Your task to perform on an android device: Open Chrome and go to settings Image 0: 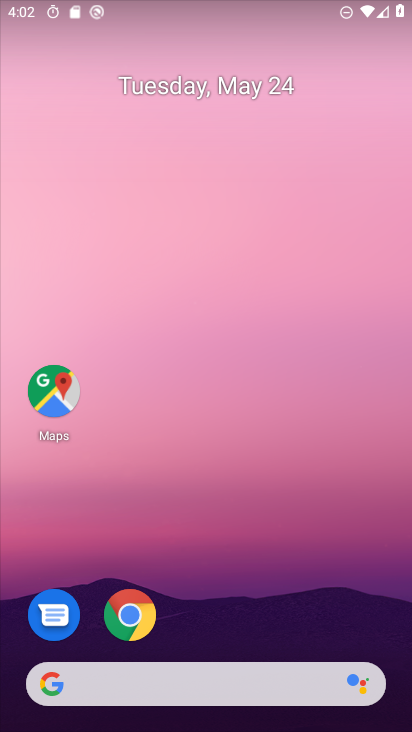
Step 0: drag from (214, 600) to (260, 150)
Your task to perform on an android device: Open Chrome and go to settings Image 1: 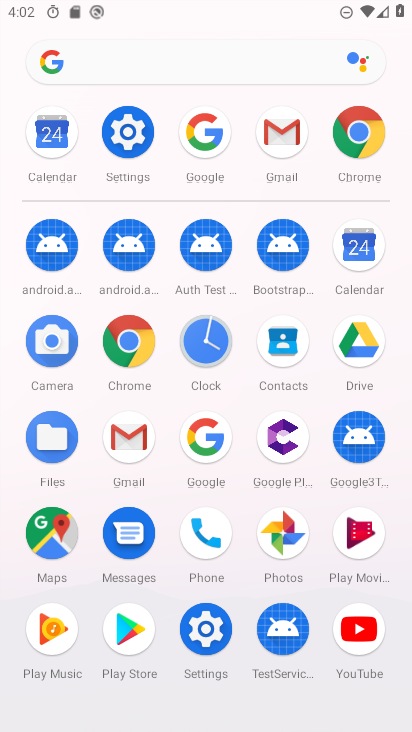
Step 1: click (357, 159)
Your task to perform on an android device: Open Chrome and go to settings Image 2: 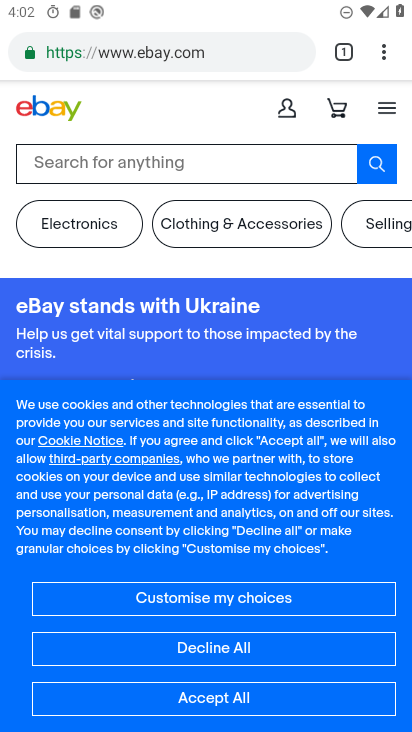
Step 2: click (387, 49)
Your task to perform on an android device: Open Chrome and go to settings Image 3: 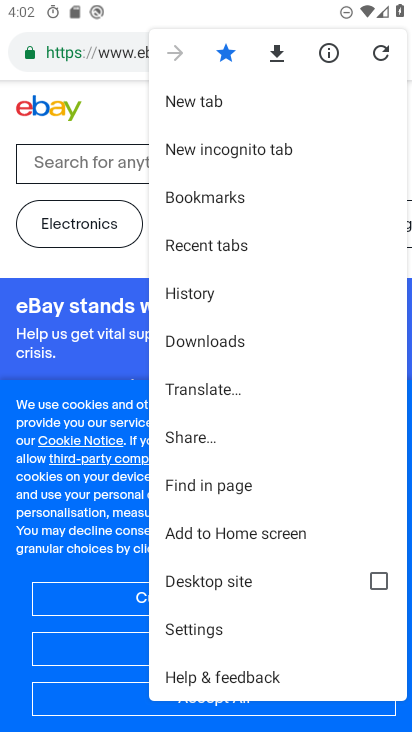
Step 3: click (227, 626)
Your task to perform on an android device: Open Chrome and go to settings Image 4: 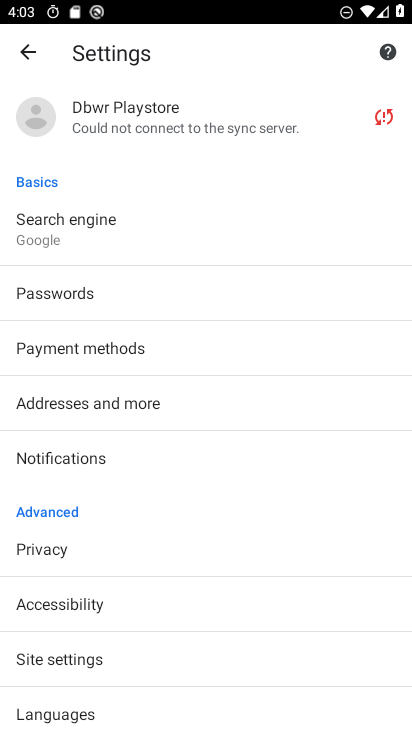
Step 4: task complete